Your task to perform on an android device: Open battery settings Image 0: 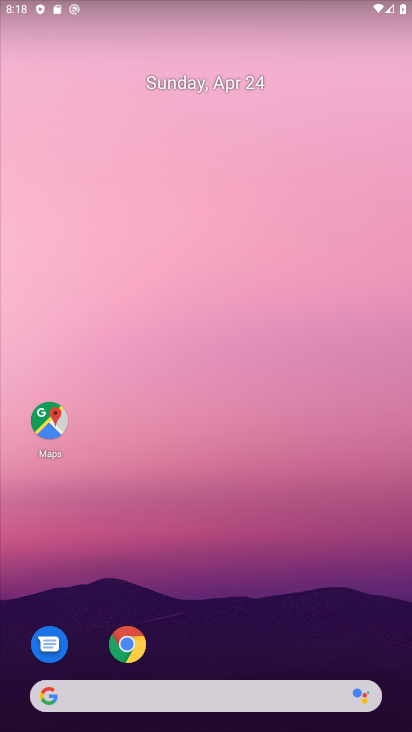
Step 0: click (388, 440)
Your task to perform on an android device: Open battery settings Image 1: 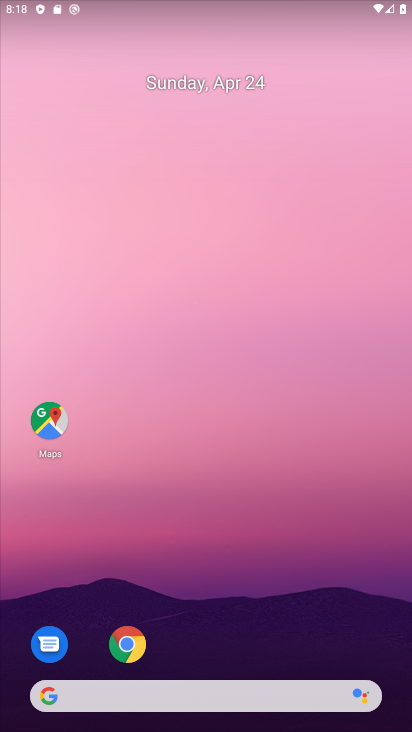
Step 1: drag from (280, 605) to (360, 79)
Your task to perform on an android device: Open battery settings Image 2: 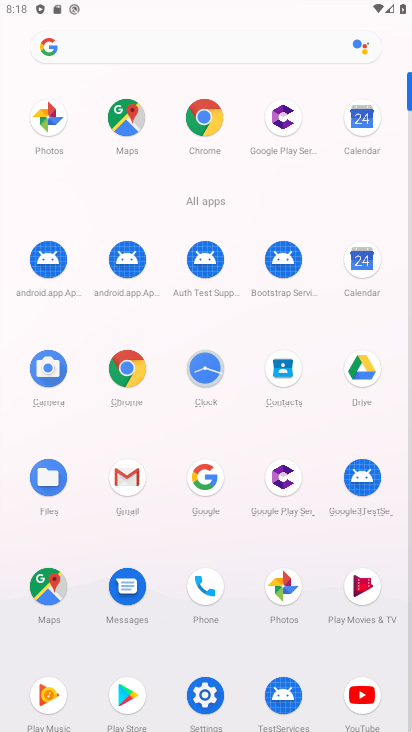
Step 2: click (204, 686)
Your task to perform on an android device: Open battery settings Image 3: 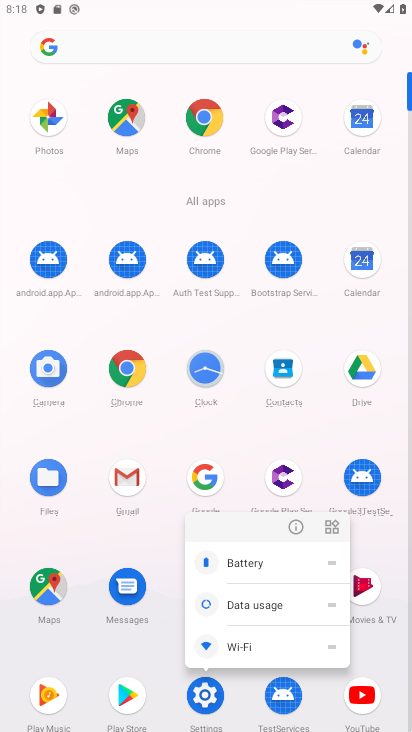
Step 3: click (301, 526)
Your task to perform on an android device: Open battery settings Image 4: 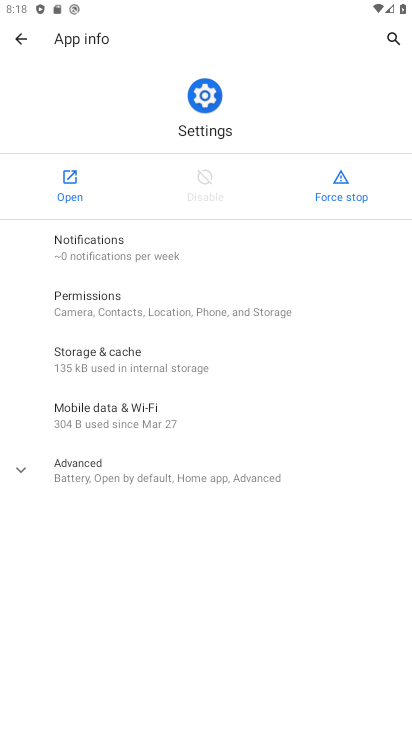
Step 4: click (70, 180)
Your task to perform on an android device: Open battery settings Image 5: 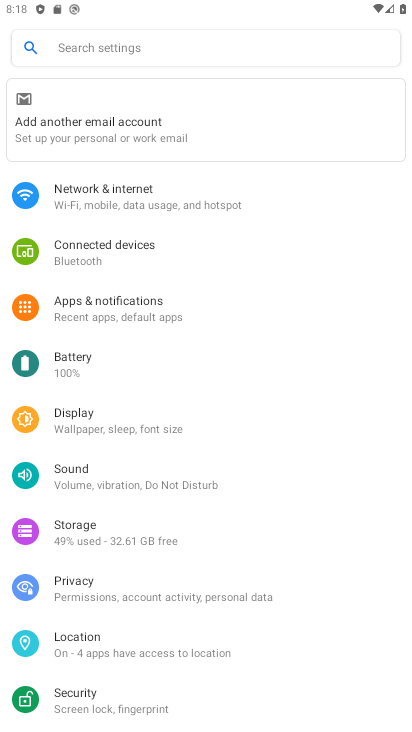
Step 5: click (101, 354)
Your task to perform on an android device: Open battery settings Image 6: 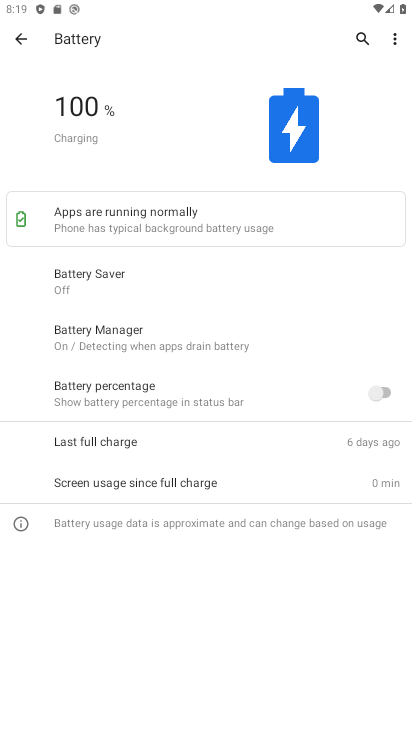
Step 6: click (346, 383)
Your task to perform on an android device: Open battery settings Image 7: 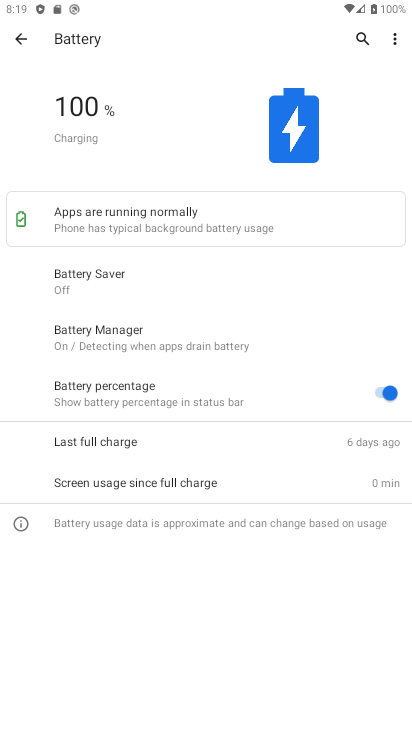
Step 7: task complete